Your task to perform on an android device: Open Google Chrome Image 0: 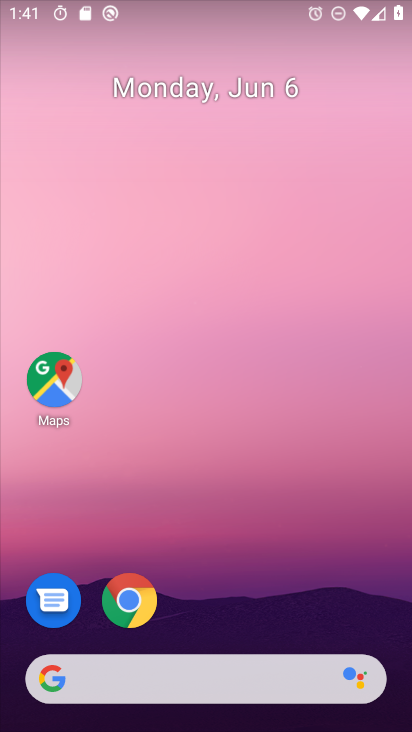
Step 0: click (142, 609)
Your task to perform on an android device: Open Google Chrome Image 1: 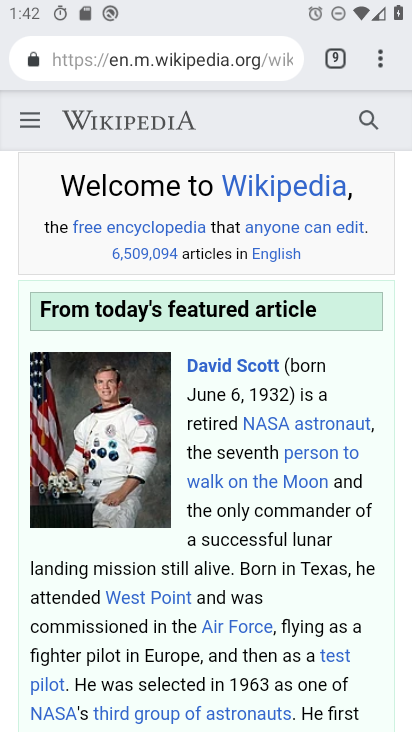
Step 1: task complete